Your task to perform on an android device: Open the map Image 0: 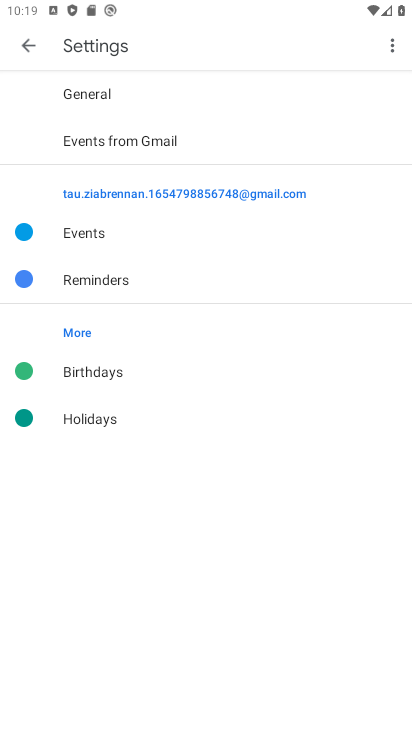
Step 0: press home button
Your task to perform on an android device: Open the map Image 1: 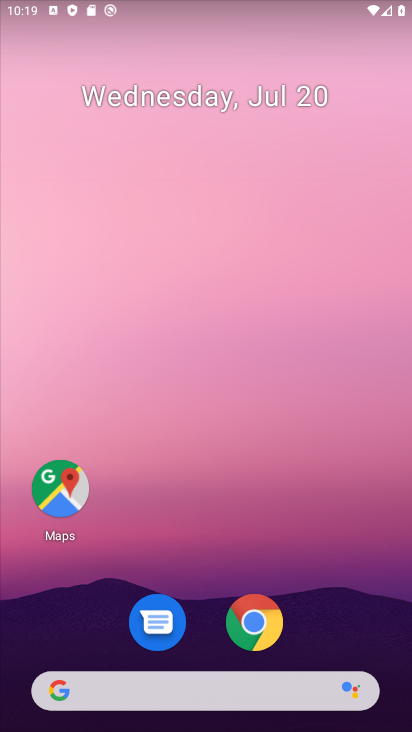
Step 1: click (52, 497)
Your task to perform on an android device: Open the map Image 2: 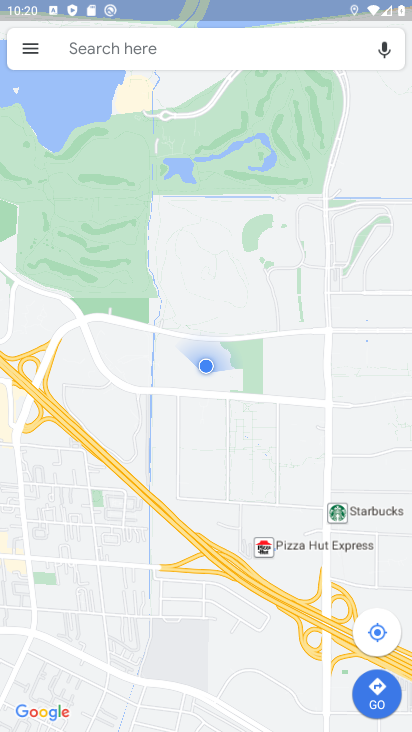
Step 2: task complete